Your task to perform on an android device: clear history in the chrome app Image 0: 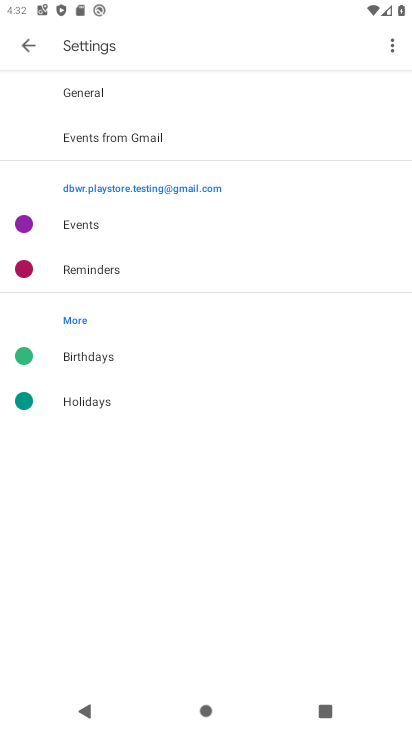
Step 0: press home button
Your task to perform on an android device: clear history in the chrome app Image 1: 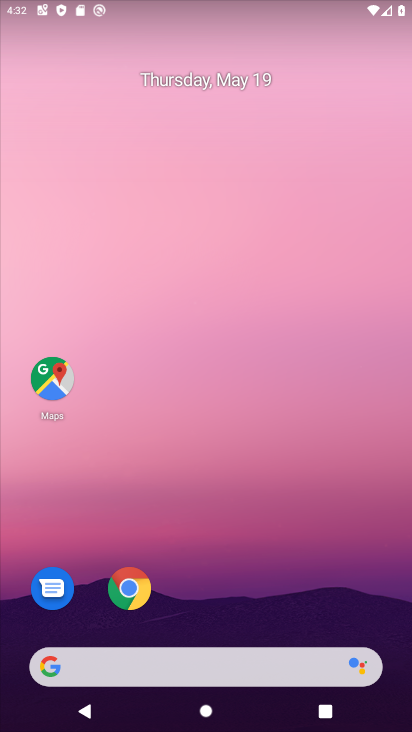
Step 1: click (129, 592)
Your task to perform on an android device: clear history in the chrome app Image 2: 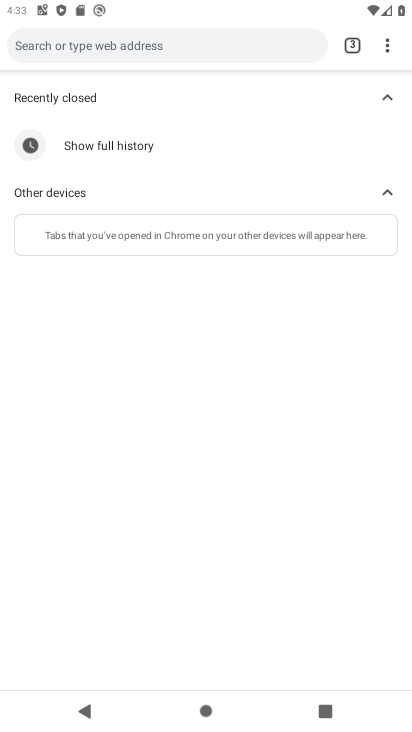
Step 2: click (397, 49)
Your task to perform on an android device: clear history in the chrome app Image 3: 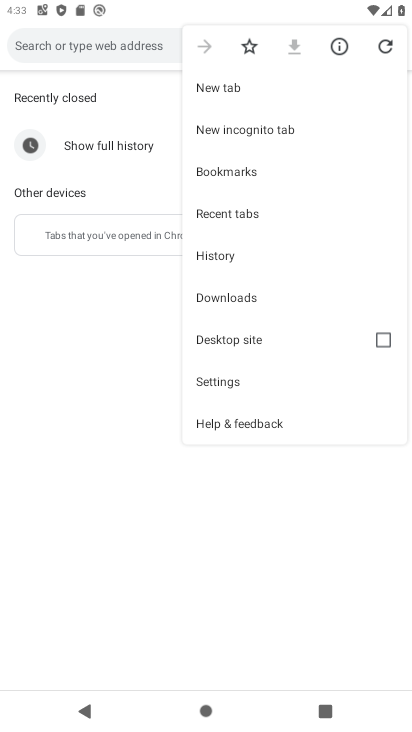
Step 3: click (217, 254)
Your task to perform on an android device: clear history in the chrome app Image 4: 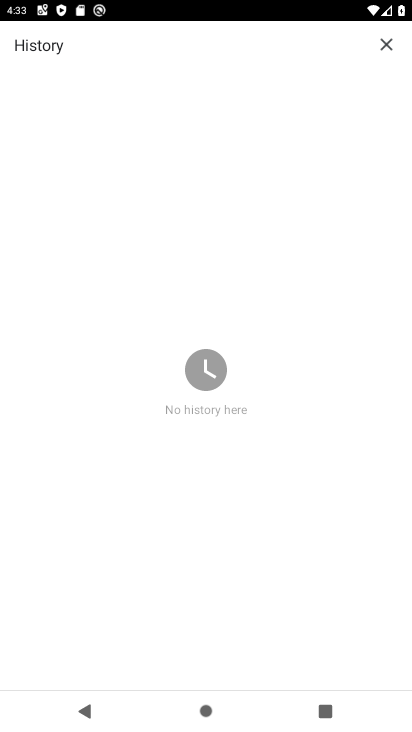
Step 4: task complete